Your task to perform on an android device: Open location settings Image 0: 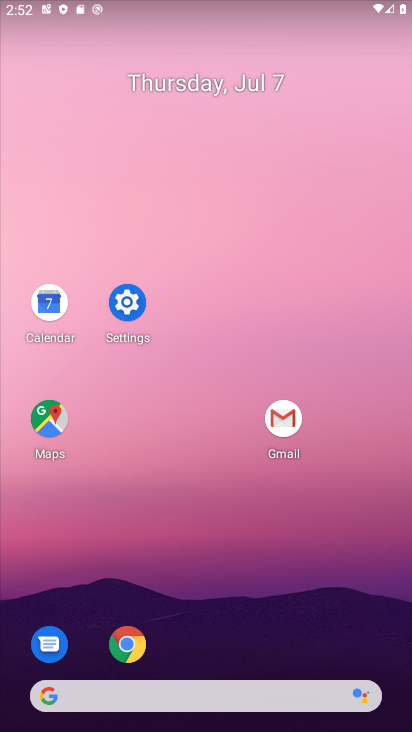
Step 0: drag from (393, 667) to (315, 90)
Your task to perform on an android device: Open location settings Image 1: 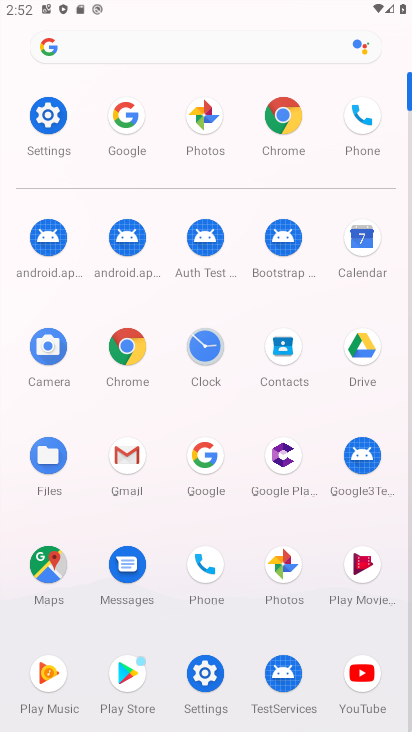
Step 1: click (58, 117)
Your task to perform on an android device: Open location settings Image 2: 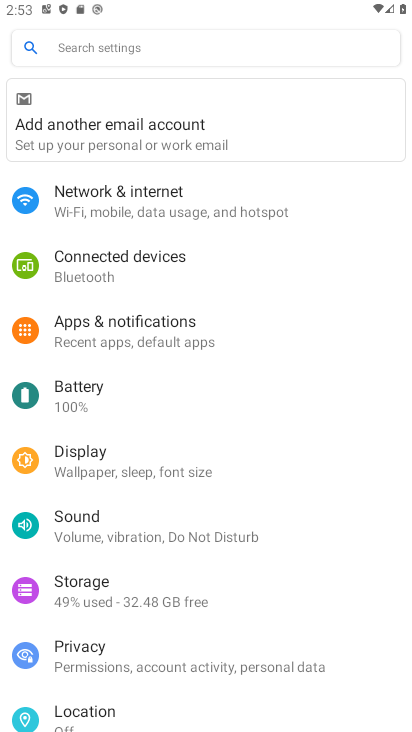
Step 2: click (91, 702)
Your task to perform on an android device: Open location settings Image 3: 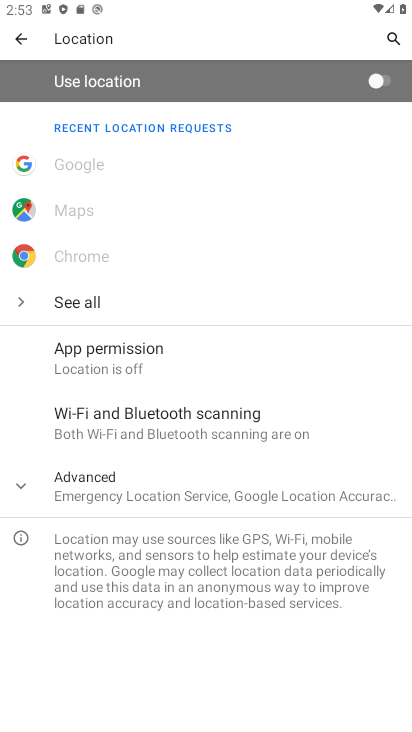
Step 3: click (22, 483)
Your task to perform on an android device: Open location settings Image 4: 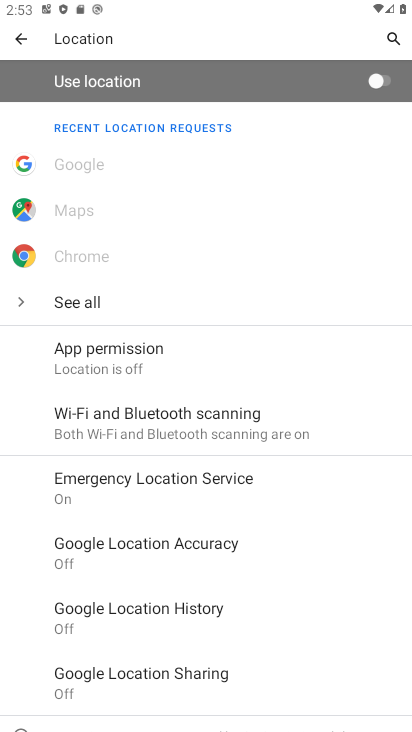
Step 4: task complete